Your task to perform on an android device: open chrome and create a bookmark for the current page Image 0: 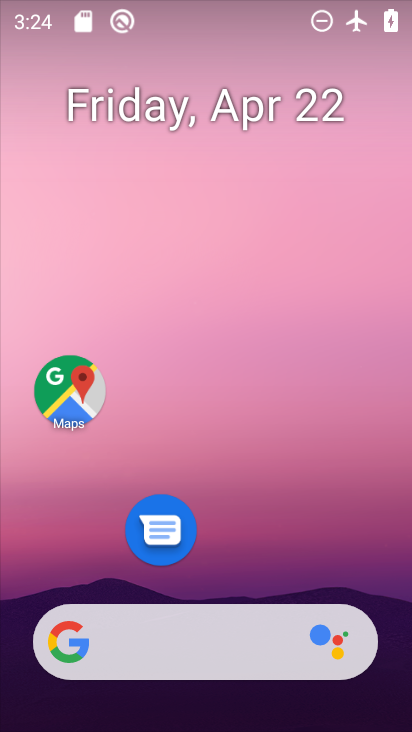
Step 0: drag from (229, 566) to (220, 151)
Your task to perform on an android device: open chrome and create a bookmark for the current page Image 1: 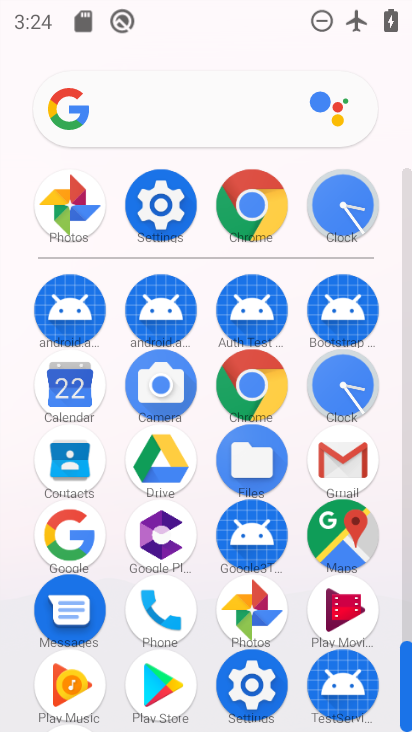
Step 1: click (257, 205)
Your task to perform on an android device: open chrome and create a bookmark for the current page Image 2: 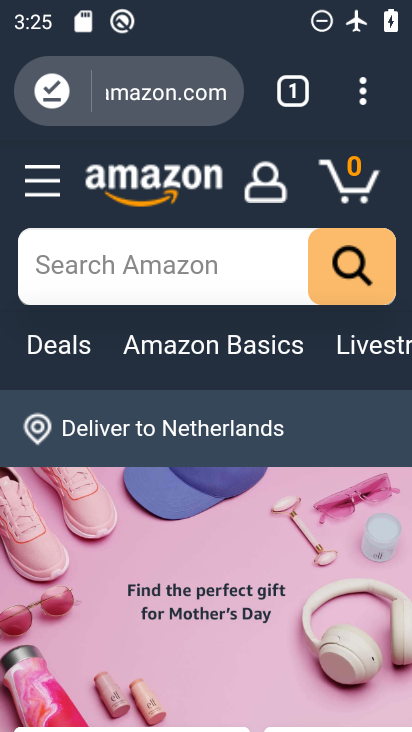
Step 2: click (362, 105)
Your task to perform on an android device: open chrome and create a bookmark for the current page Image 3: 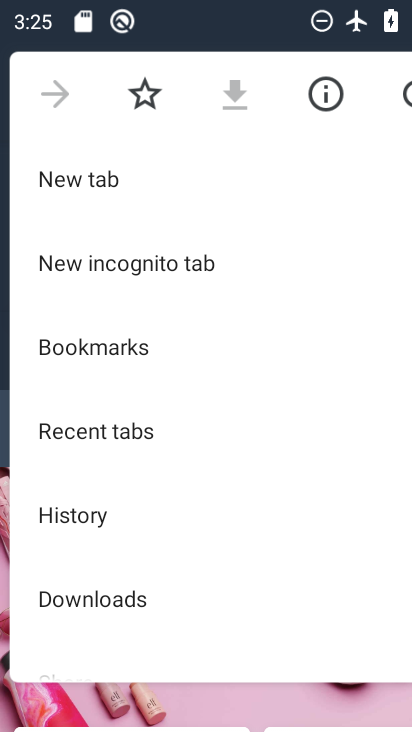
Step 3: click (147, 103)
Your task to perform on an android device: open chrome and create a bookmark for the current page Image 4: 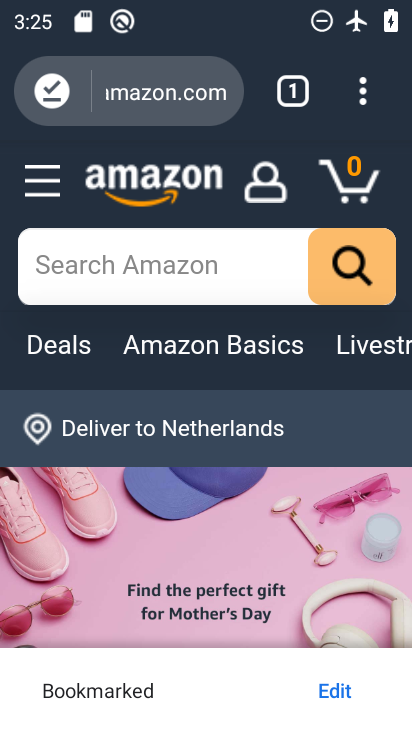
Step 4: task complete